Your task to perform on an android device: see tabs open on other devices in the chrome app Image 0: 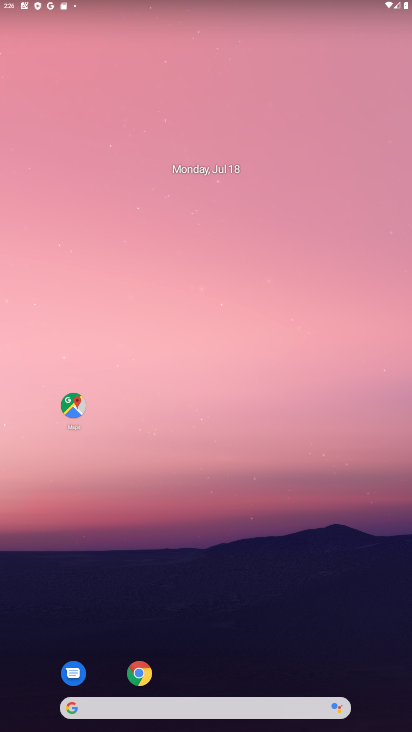
Step 0: drag from (204, 702) to (172, 193)
Your task to perform on an android device: see tabs open on other devices in the chrome app Image 1: 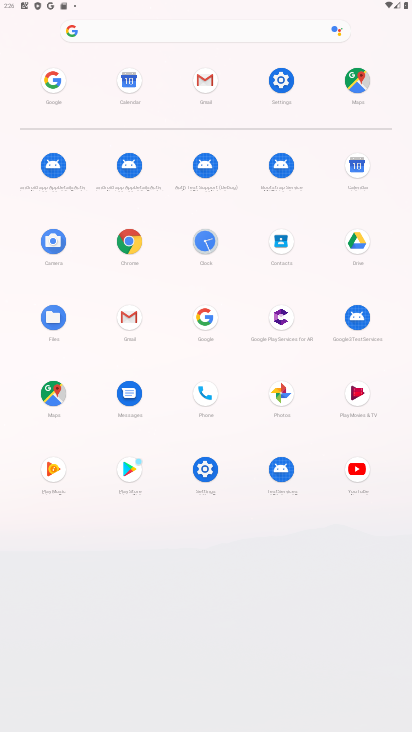
Step 1: click (130, 241)
Your task to perform on an android device: see tabs open on other devices in the chrome app Image 2: 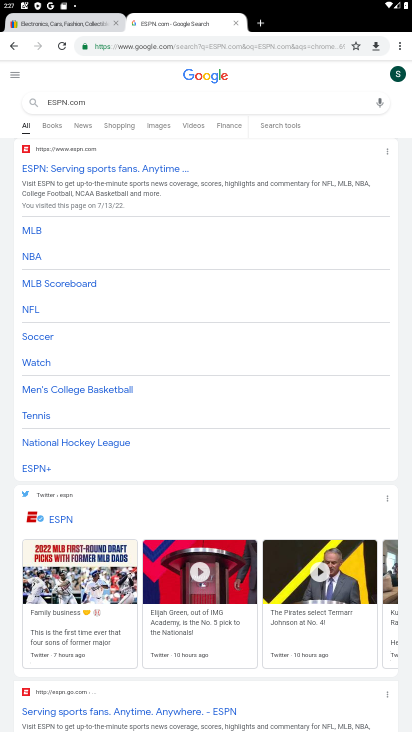
Step 2: click (400, 50)
Your task to perform on an android device: see tabs open on other devices in the chrome app Image 3: 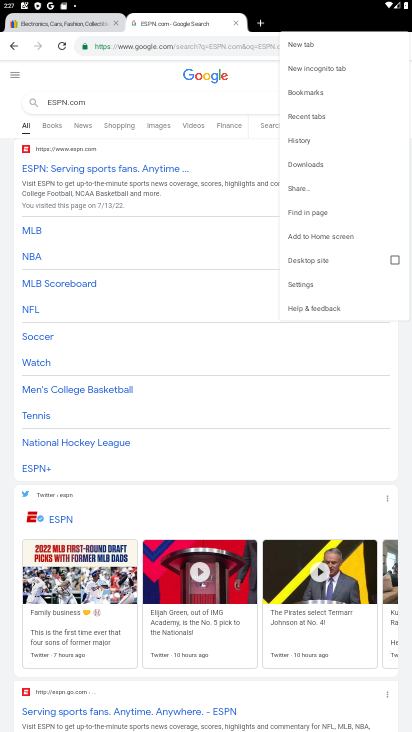
Step 3: click (317, 117)
Your task to perform on an android device: see tabs open on other devices in the chrome app Image 4: 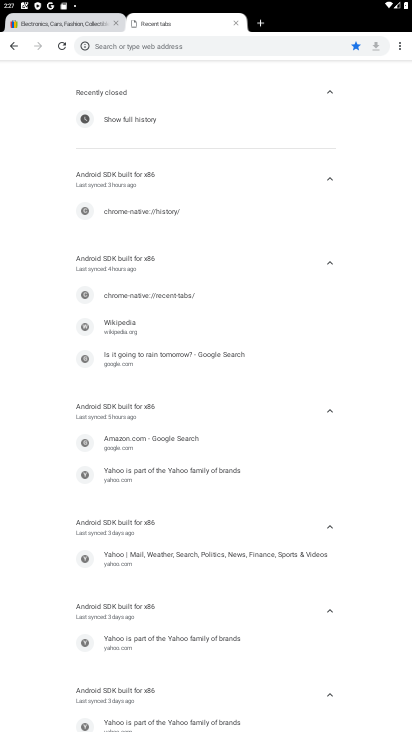
Step 4: task complete